Your task to perform on an android device: Do I have any events this weekend? Image 0: 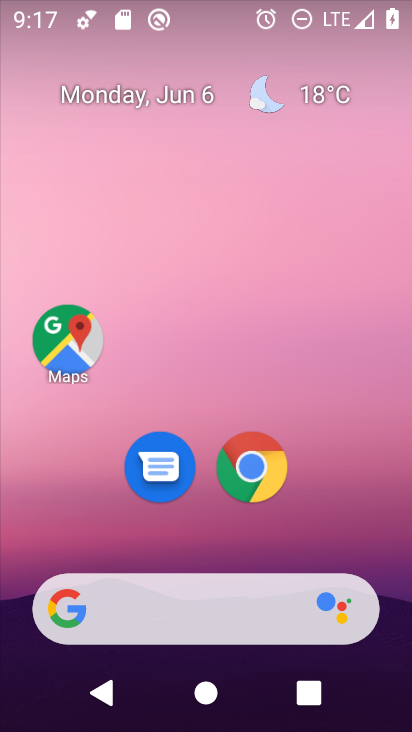
Step 0: drag from (361, 526) to (400, 101)
Your task to perform on an android device: Do I have any events this weekend? Image 1: 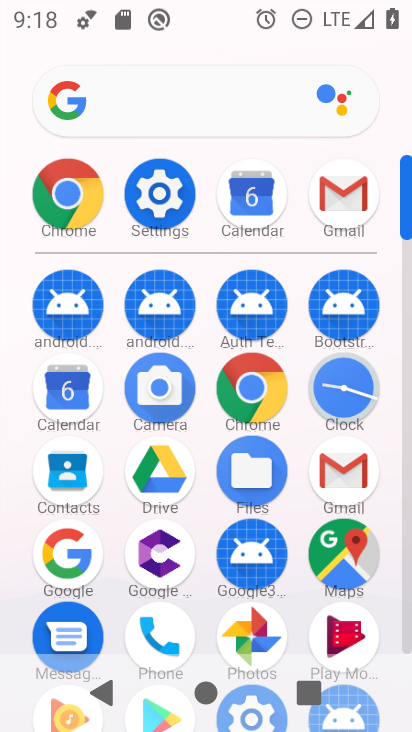
Step 1: click (73, 403)
Your task to perform on an android device: Do I have any events this weekend? Image 2: 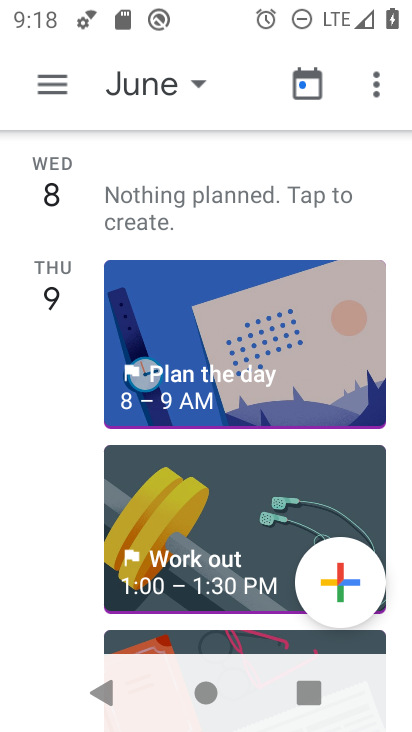
Step 2: click (189, 84)
Your task to perform on an android device: Do I have any events this weekend? Image 3: 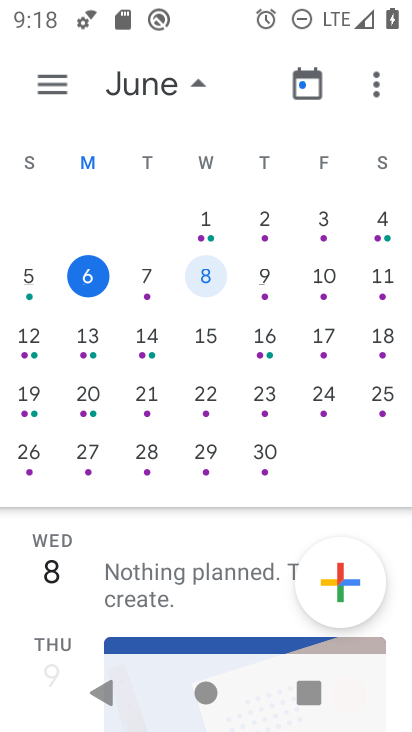
Step 3: click (146, 277)
Your task to perform on an android device: Do I have any events this weekend? Image 4: 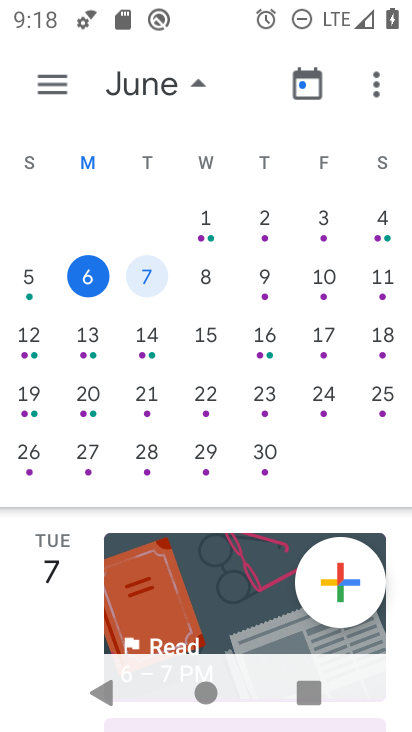
Step 4: drag from (187, 421) to (217, 118)
Your task to perform on an android device: Do I have any events this weekend? Image 5: 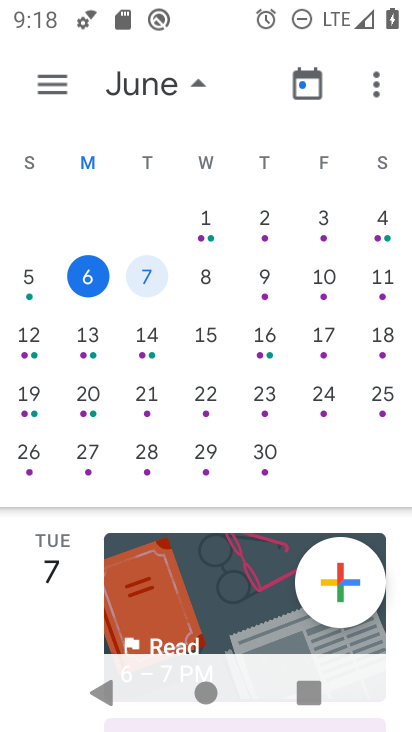
Step 5: drag from (198, 554) to (261, 170)
Your task to perform on an android device: Do I have any events this weekend? Image 6: 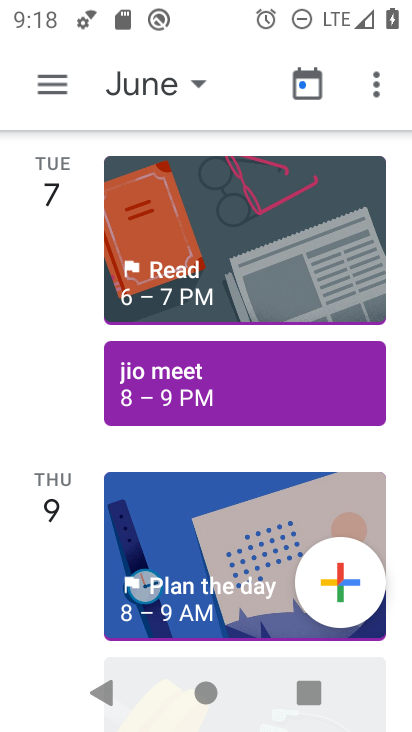
Step 6: drag from (241, 484) to (262, 268)
Your task to perform on an android device: Do I have any events this weekend? Image 7: 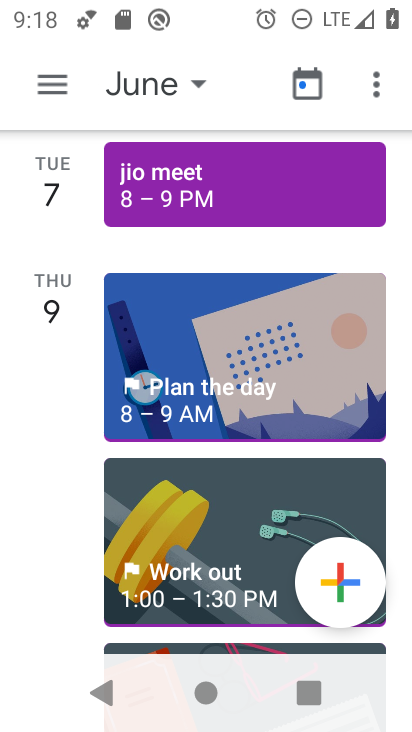
Step 7: drag from (196, 459) to (196, 259)
Your task to perform on an android device: Do I have any events this weekend? Image 8: 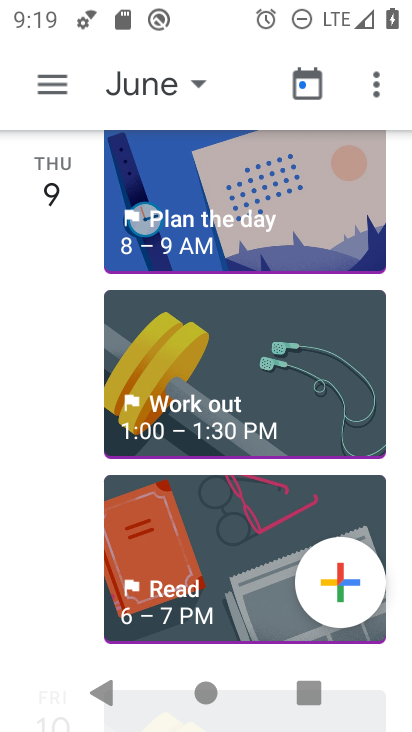
Step 8: drag from (232, 488) to (240, 211)
Your task to perform on an android device: Do I have any events this weekend? Image 9: 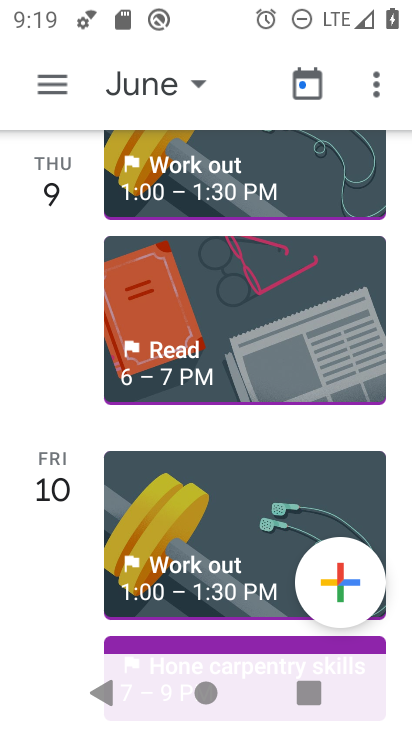
Step 9: drag from (232, 485) to (239, 198)
Your task to perform on an android device: Do I have any events this weekend? Image 10: 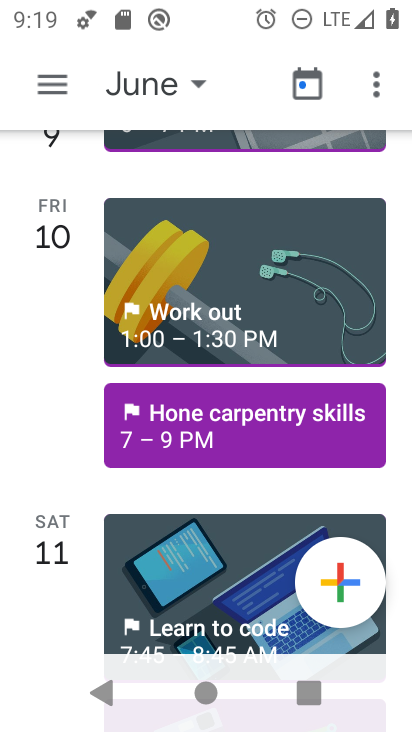
Step 10: drag from (216, 487) to (229, 263)
Your task to perform on an android device: Do I have any events this weekend? Image 11: 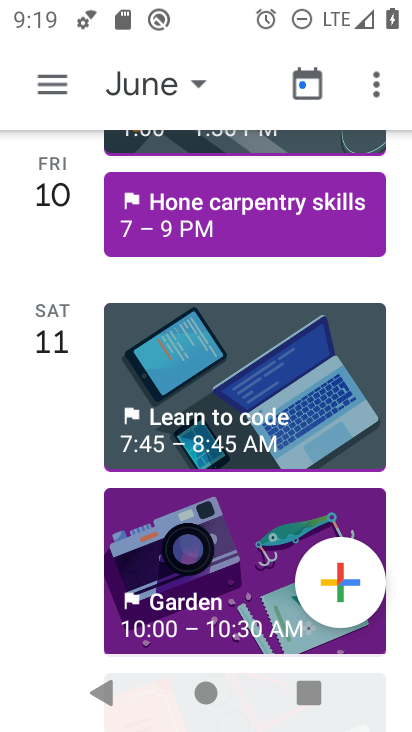
Step 11: click (232, 419)
Your task to perform on an android device: Do I have any events this weekend? Image 12: 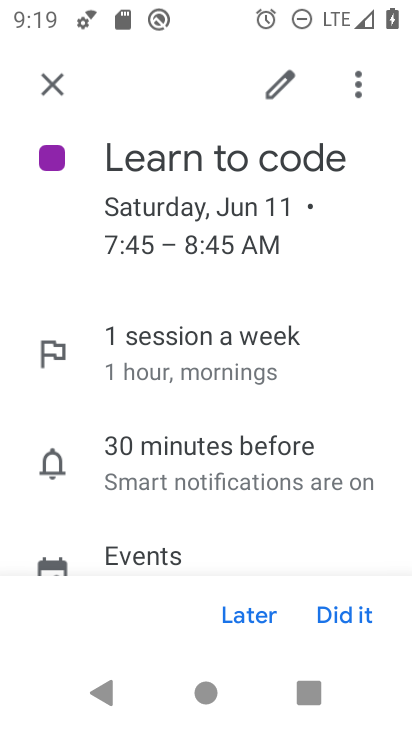
Step 12: task complete